Your task to perform on an android device: stop showing notifications on the lock screen Image 0: 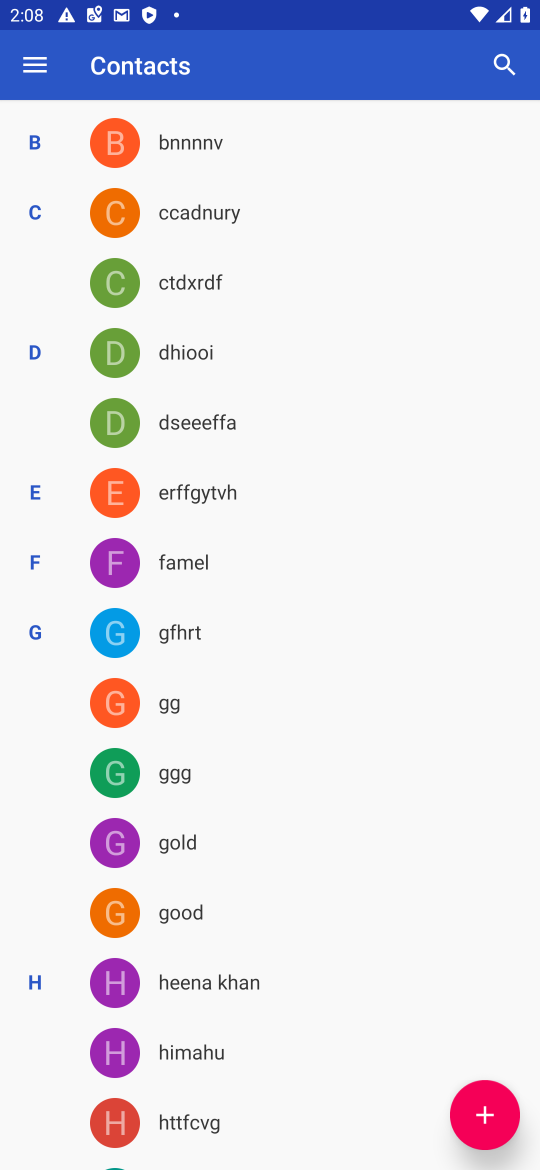
Step 0: press home button
Your task to perform on an android device: stop showing notifications on the lock screen Image 1: 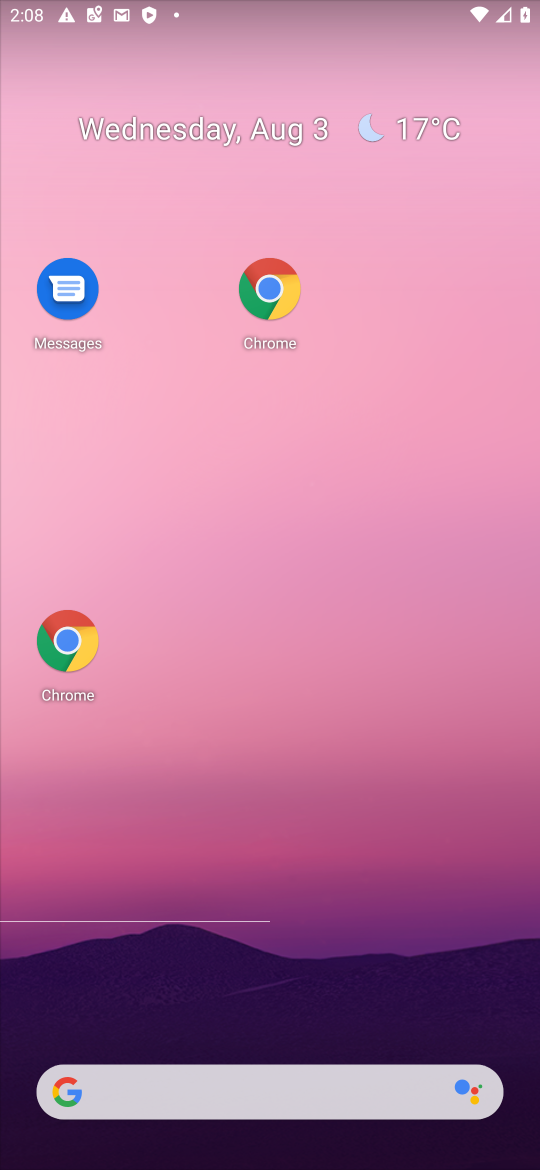
Step 1: drag from (371, 1028) to (389, 531)
Your task to perform on an android device: stop showing notifications on the lock screen Image 2: 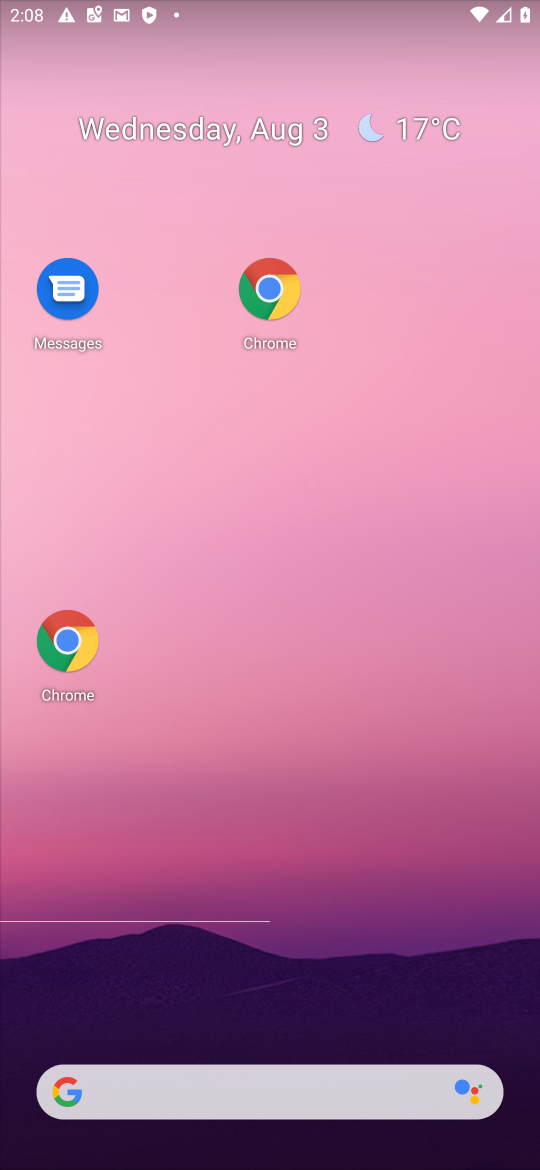
Step 2: drag from (286, 1010) to (323, 104)
Your task to perform on an android device: stop showing notifications on the lock screen Image 3: 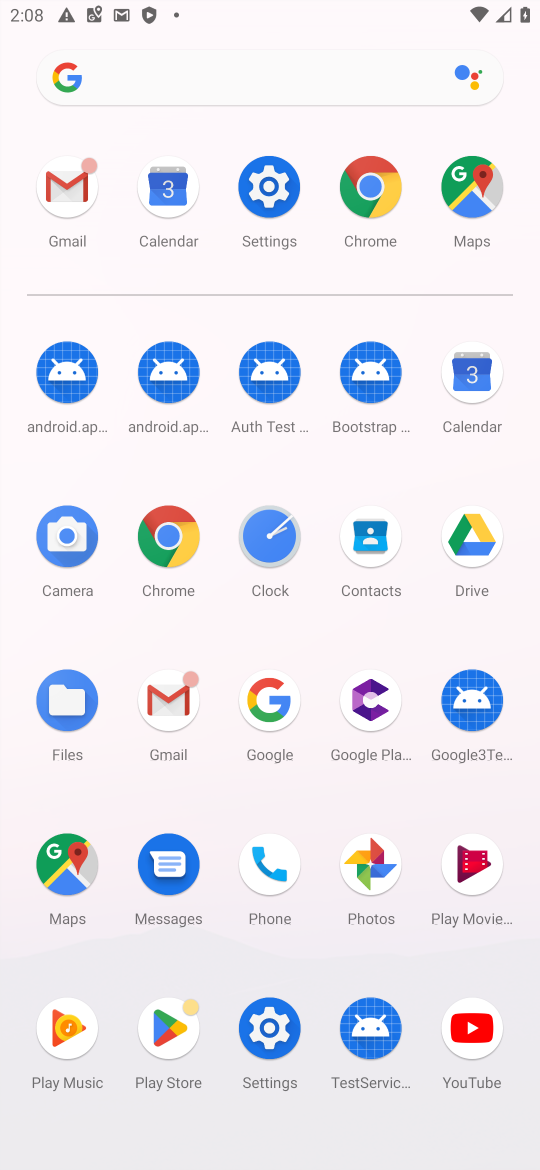
Step 3: click (272, 220)
Your task to perform on an android device: stop showing notifications on the lock screen Image 4: 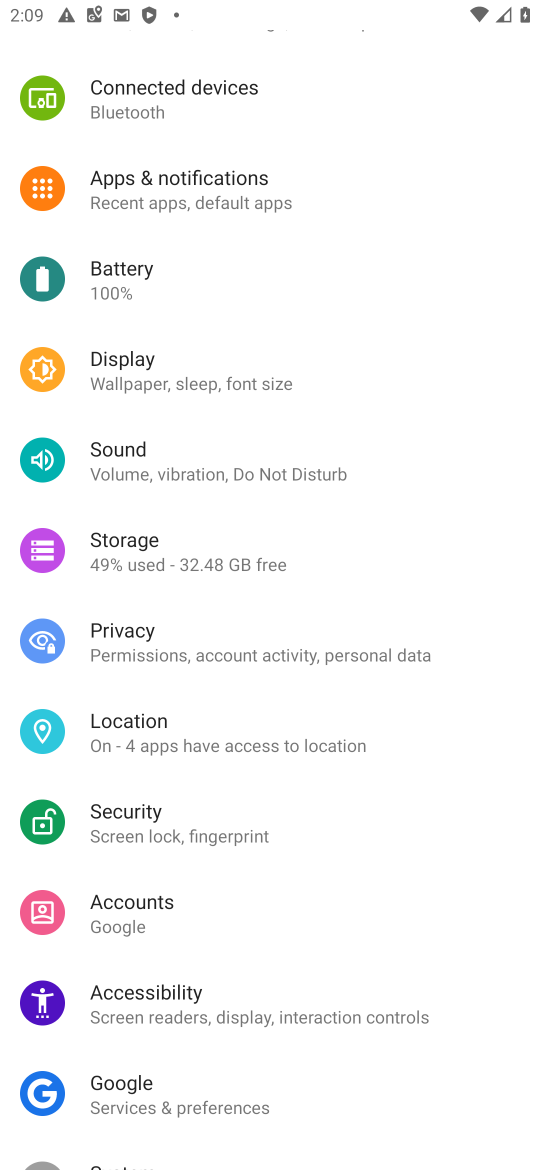
Step 4: click (231, 215)
Your task to perform on an android device: stop showing notifications on the lock screen Image 5: 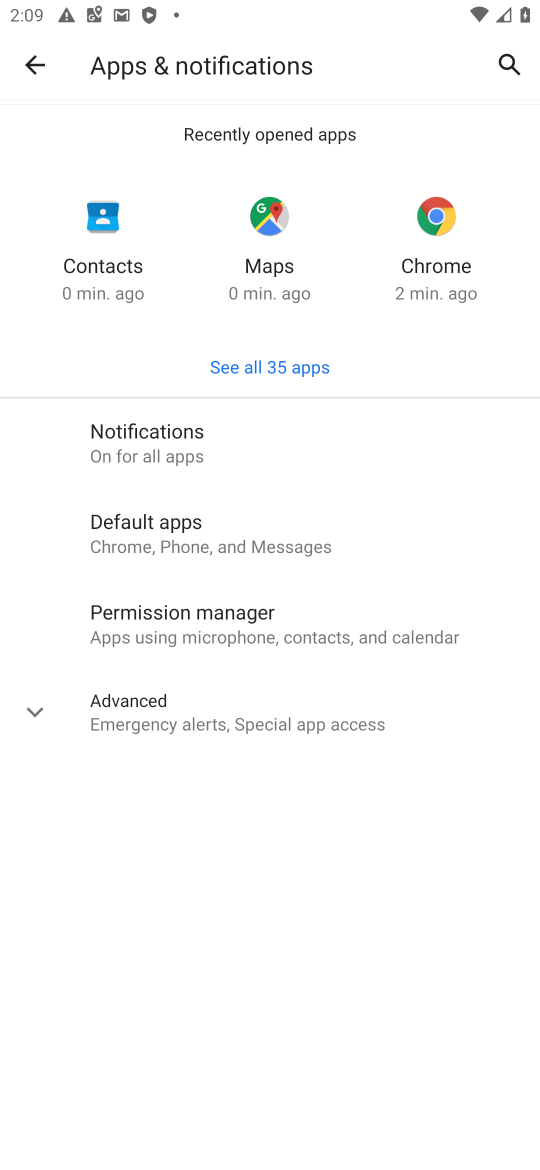
Step 5: click (157, 472)
Your task to perform on an android device: stop showing notifications on the lock screen Image 6: 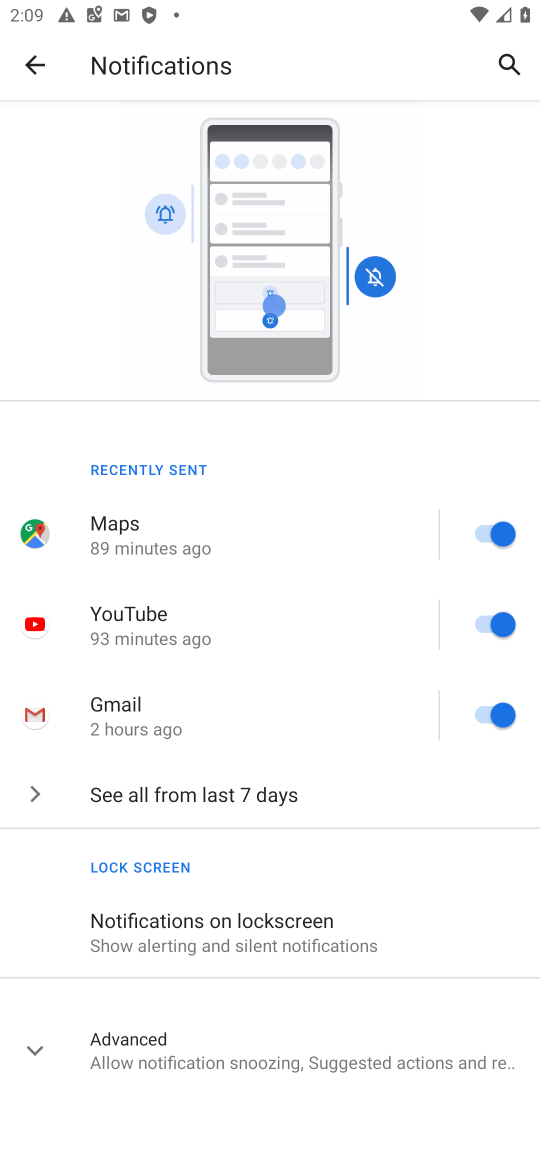
Step 6: click (276, 942)
Your task to perform on an android device: stop showing notifications on the lock screen Image 7: 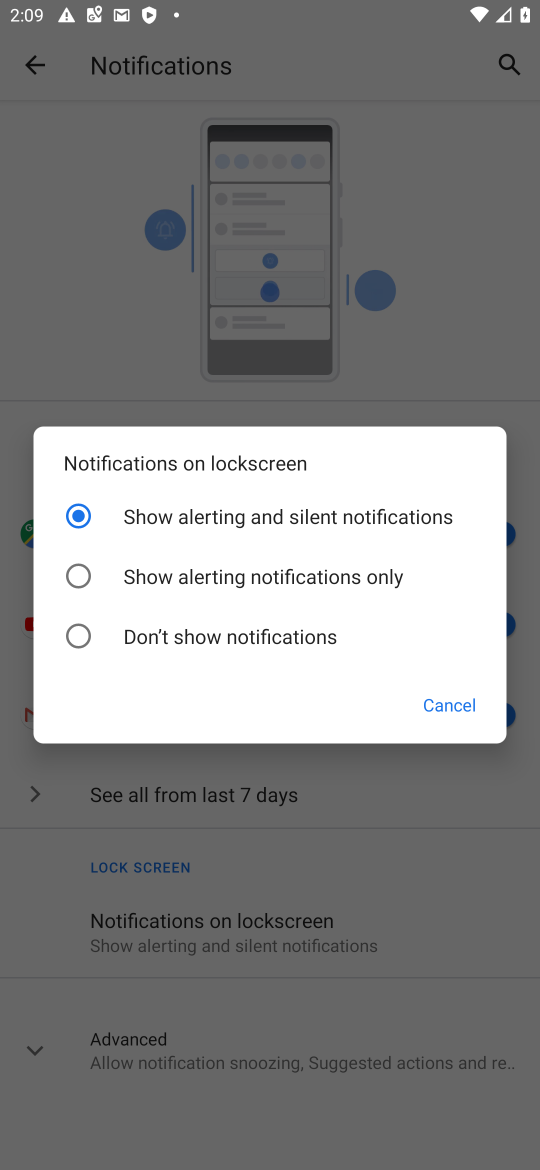
Step 7: click (316, 637)
Your task to perform on an android device: stop showing notifications on the lock screen Image 8: 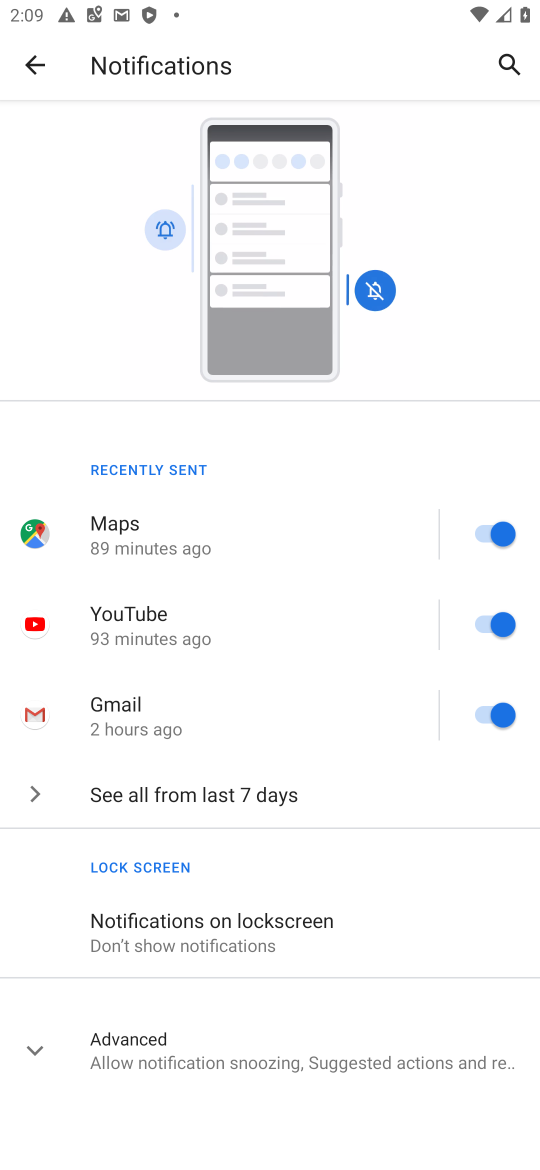
Step 8: task complete